Your task to perform on an android device: Go to Yahoo.com Image 0: 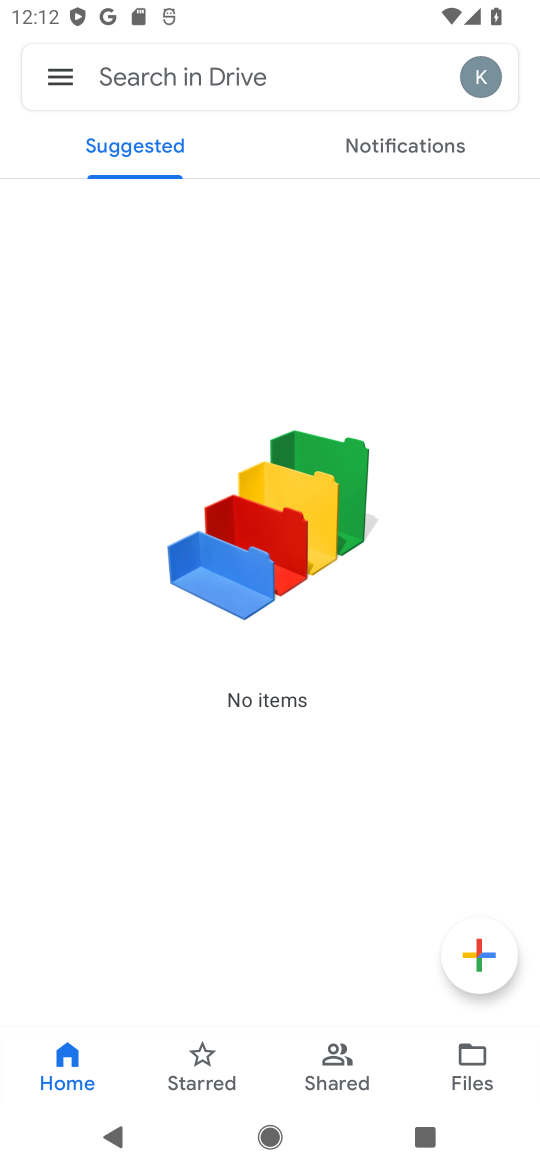
Step 0: press home button
Your task to perform on an android device: Go to Yahoo.com Image 1: 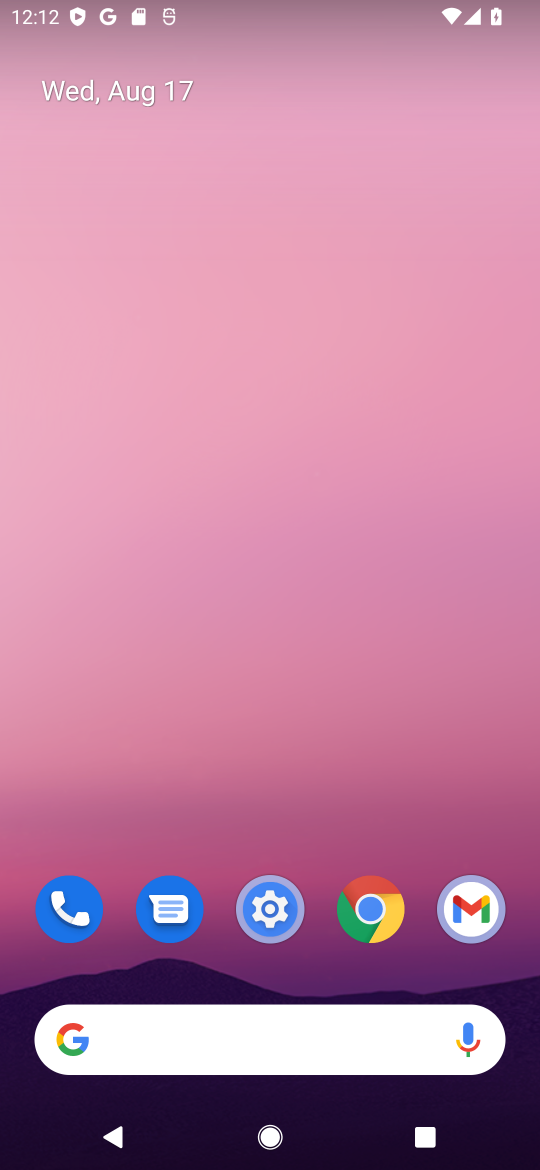
Step 1: click (371, 912)
Your task to perform on an android device: Go to Yahoo.com Image 2: 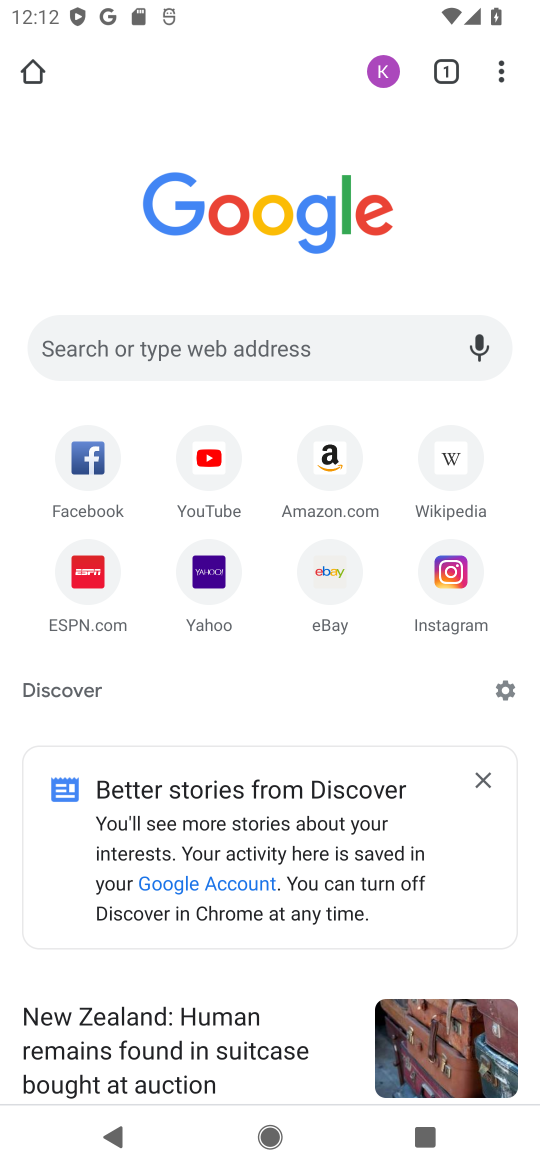
Step 2: click (201, 578)
Your task to perform on an android device: Go to Yahoo.com Image 3: 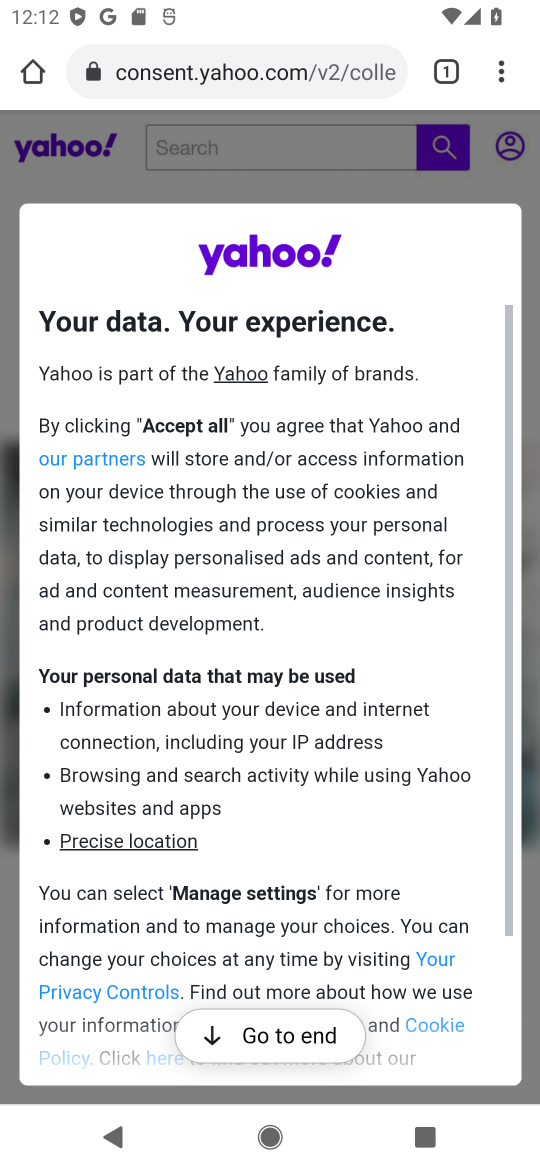
Step 3: click (316, 1029)
Your task to perform on an android device: Go to Yahoo.com Image 4: 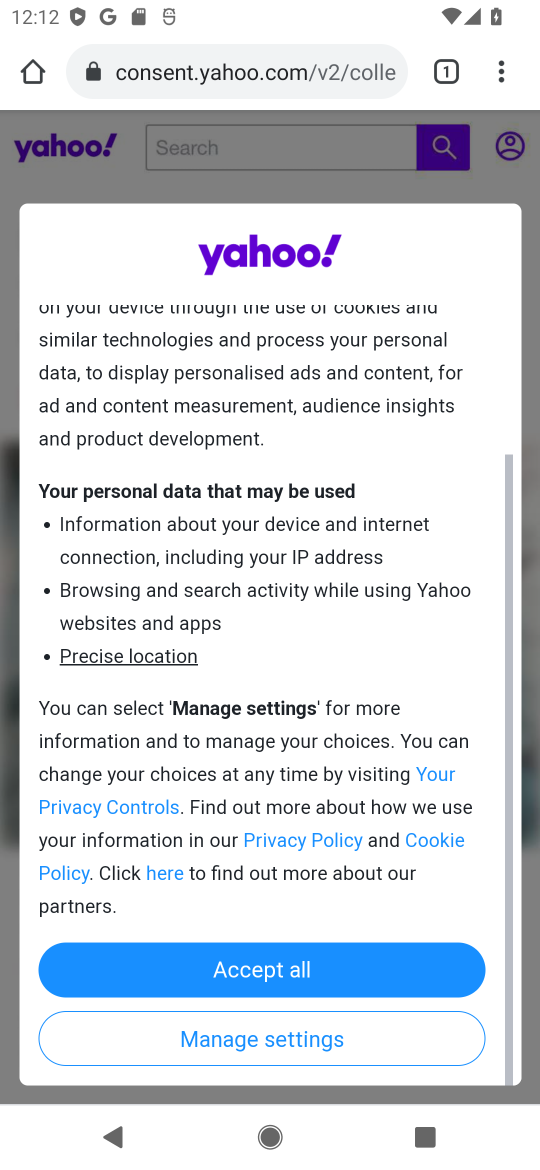
Step 4: click (275, 977)
Your task to perform on an android device: Go to Yahoo.com Image 5: 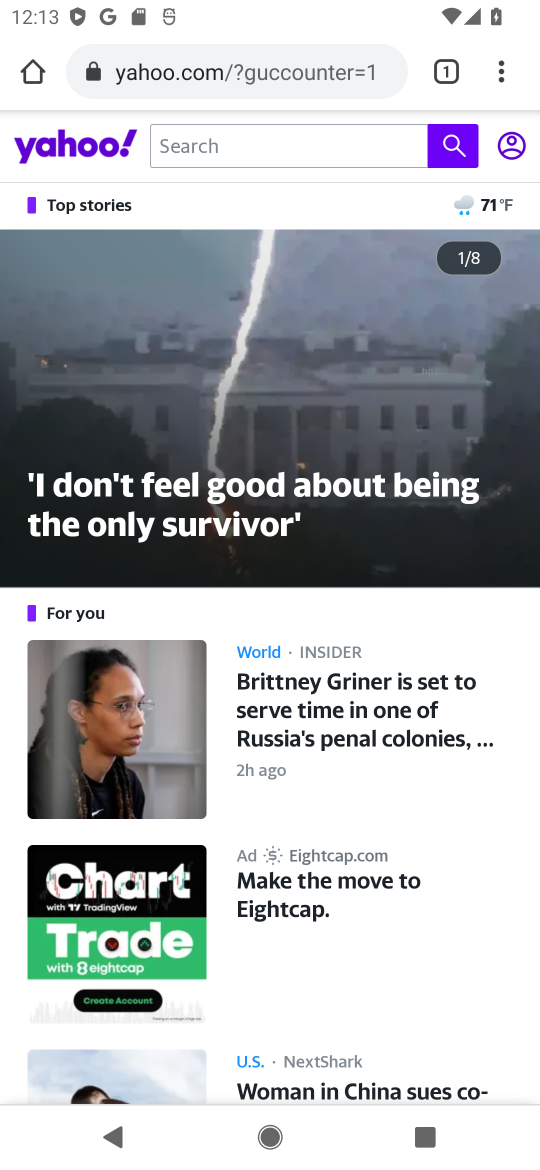
Step 5: task complete